Your task to perform on an android device: Open display settings Image 0: 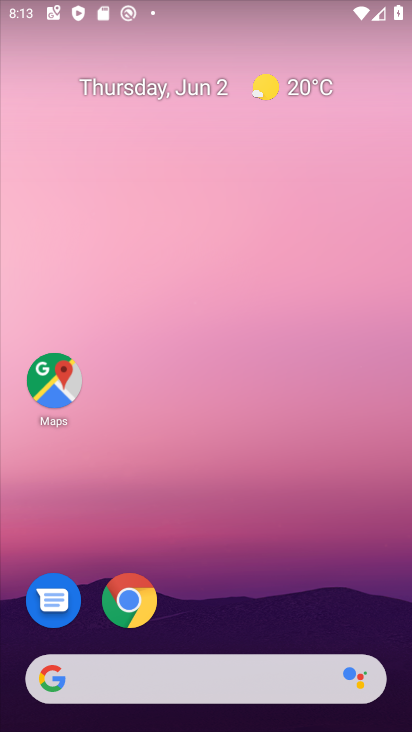
Step 0: drag from (369, 609) to (364, 148)
Your task to perform on an android device: Open display settings Image 1: 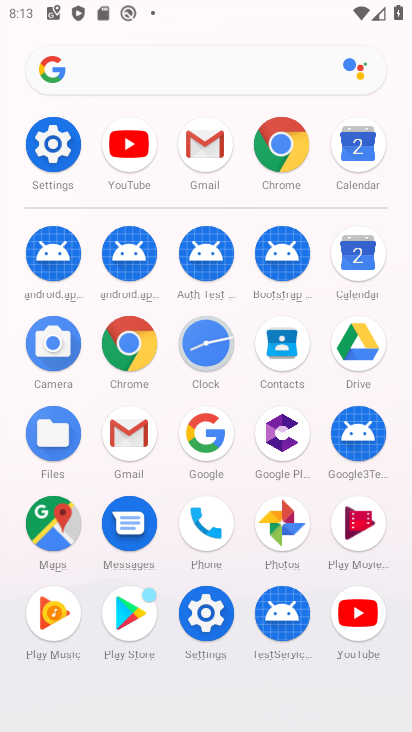
Step 1: click (201, 623)
Your task to perform on an android device: Open display settings Image 2: 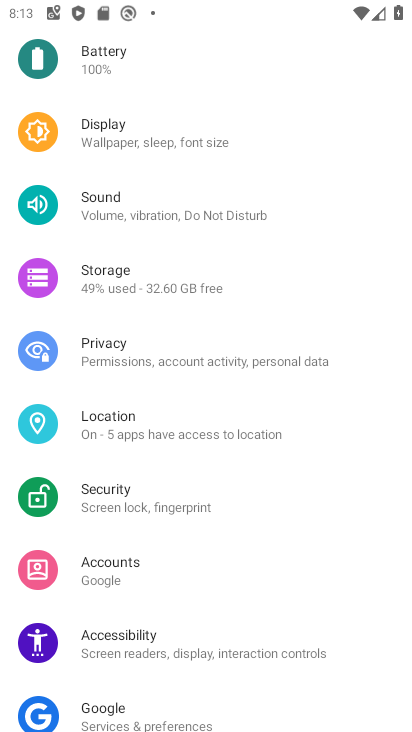
Step 2: drag from (284, 564) to (340, 375)
Your task to perform on an android device: Open display settings Image 3: 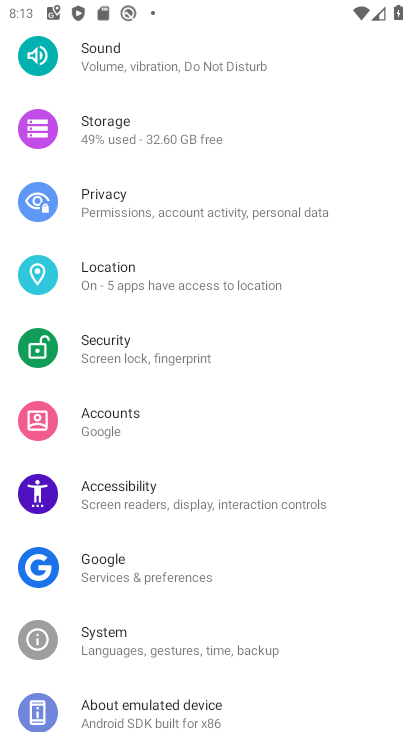
Step 3: drag from (362, 584) to (377, 408)
Your task to perform on an android device: Open display settings Image 4: 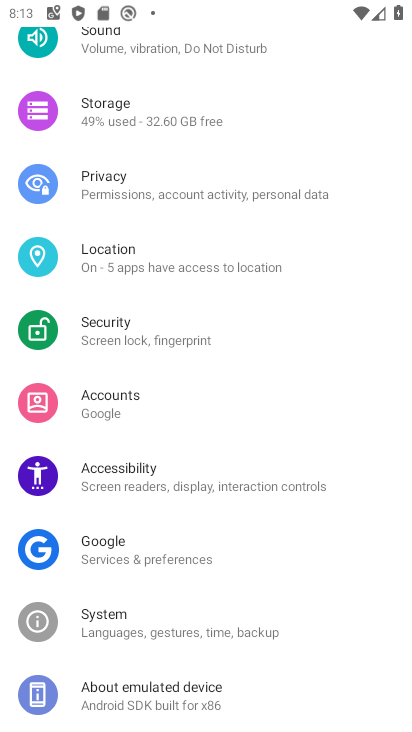
Step 4: drag from (347, 598) to (373, 402)
Your task to perform on an android device: Open display settings Image 5: 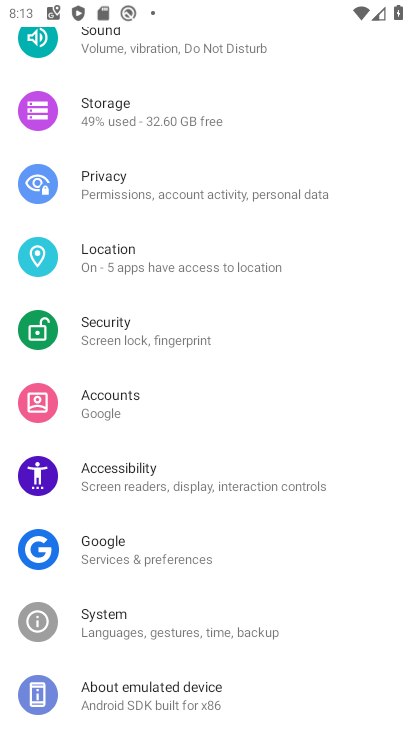
Step 5: drag from (357, 276) to (349, 409)
Your task to perform on an android device: Open display settings Image 6: 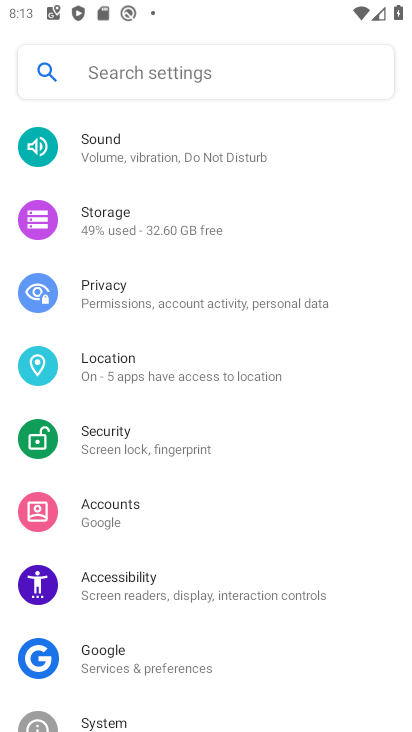
Step 6: drag from (357, 276) to (358, 373)
Your task to perform on an android device: Open display settings Image 7: 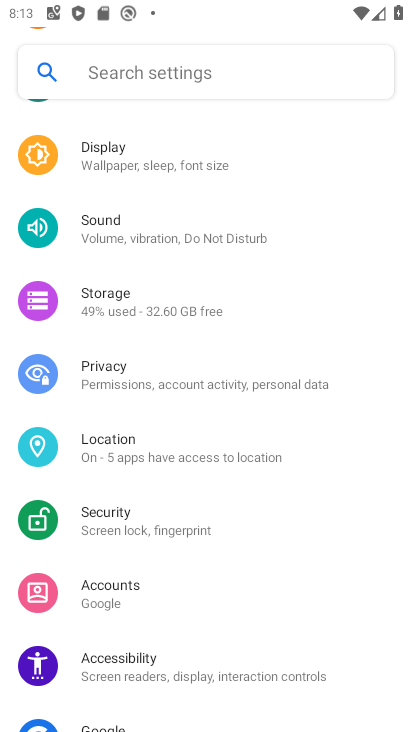
Step 7: drag from (347, 248) to (353, 369)
Your task to perform on an android device: Open display settings Image 8: 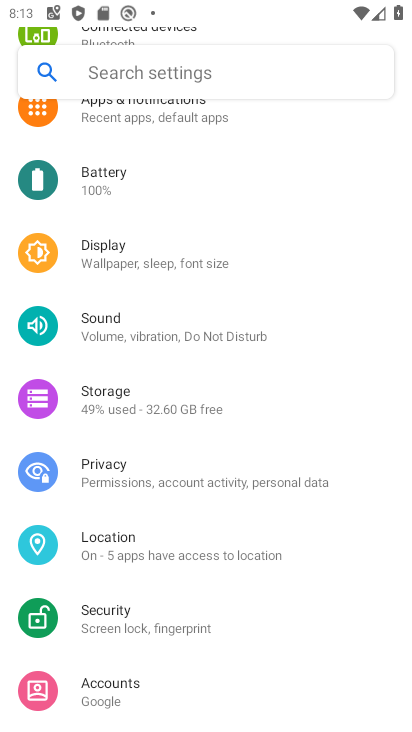
Step 8: drag from (350, 279) to (352, 392)
Your task to perform on an android device: Open display settings Image 9: 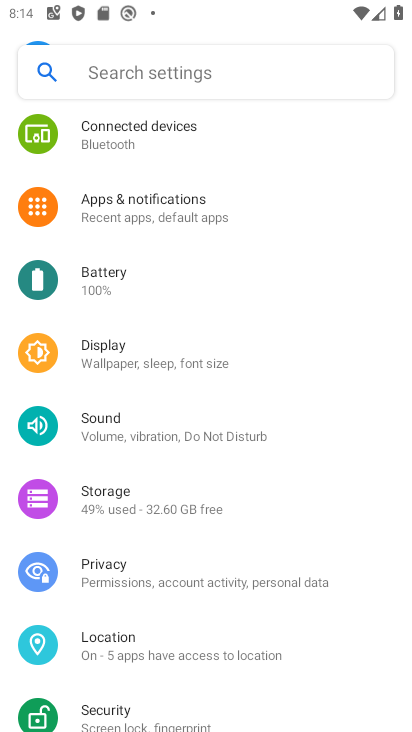
Step 9: drag from (349, 302) to (346, 426)
Your task to perform on an android device: Open display settings Image 10: 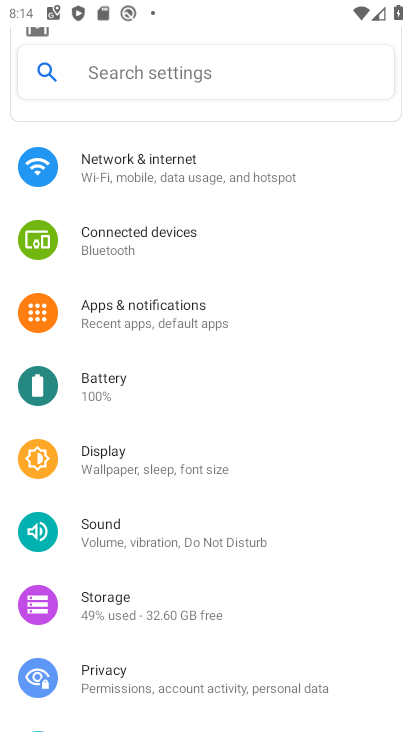
Step 10: click (188, 468)
Your task to perform on an android device: Open display settings Image 11: 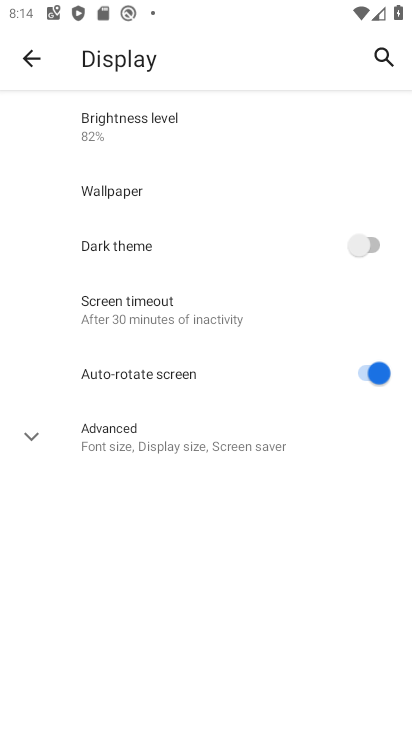
Step 11: task complete